Your task to perform on an android device: toggle show notifications on the lock screen Image 0: 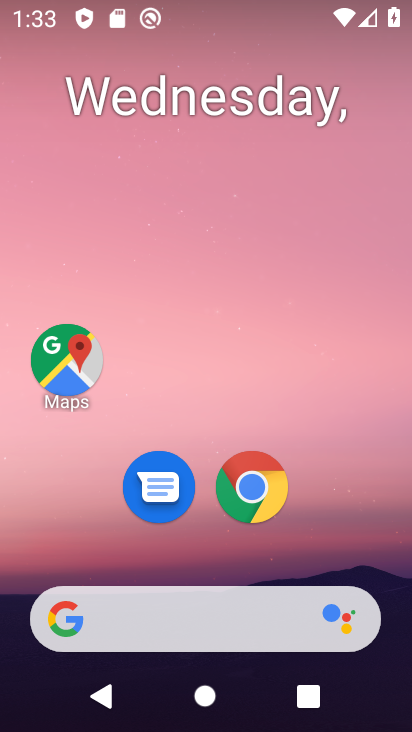
Step 0: drag from (219, 552) to (330, 13)
Your task to perform on an android device: toggle show notifications on the lock screen Image 1: 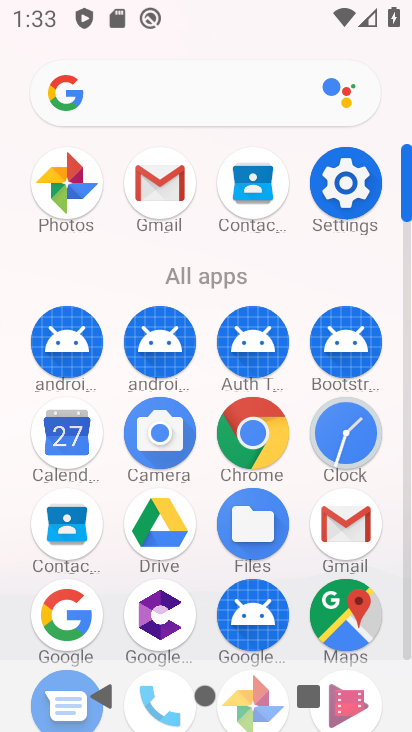
Step 1: click (341, 174)
Your task to perform on an android device: toggle show notifications on the lock screen Image 2: 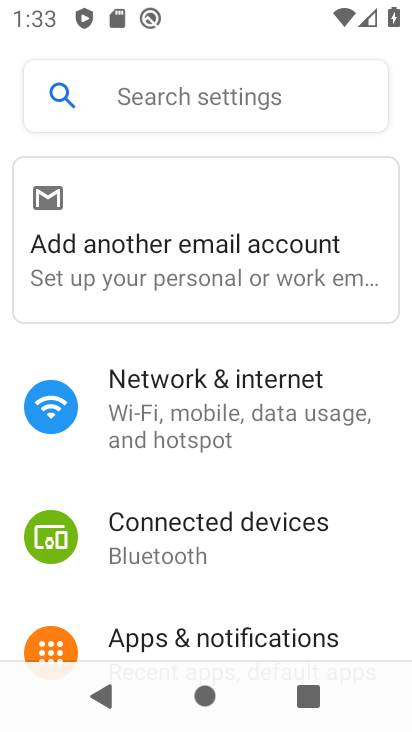
Step 2: drag from (211, 585) to (280, 334)
Your task to perform on an android device: toggle show notifications on the lock screen Image 3: 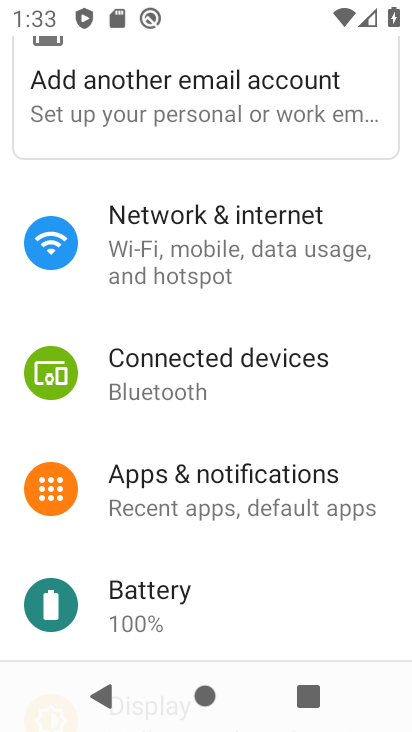
Step 3: click (227, 500)
Your task to perform on an android device: toggle show notifications on the lock screen Image 4: 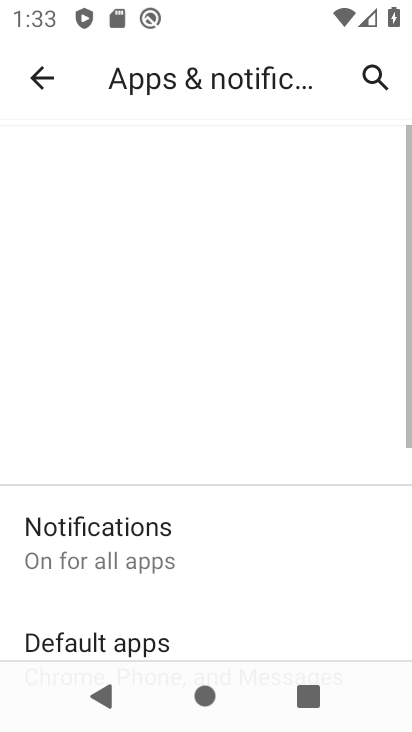
Step 4: click (186, 534)
Your task to perform on an android device: toggle show notifications on the lock screen Image 5: 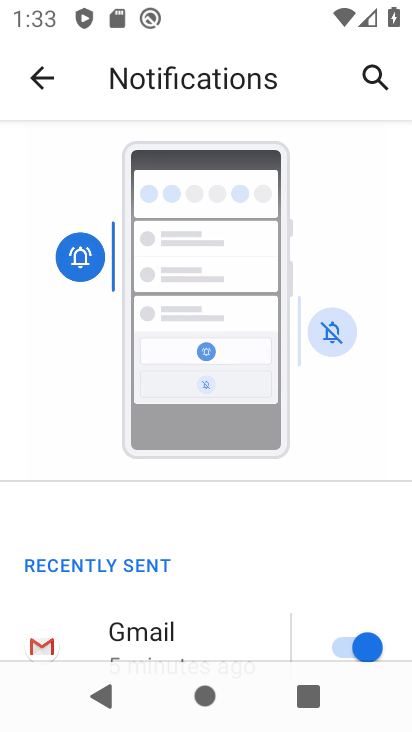
Step 5: drag from (120, 617) to (216, 113)
Your task to perform on an android device: toggle show notifications on the lock screen Image 6: 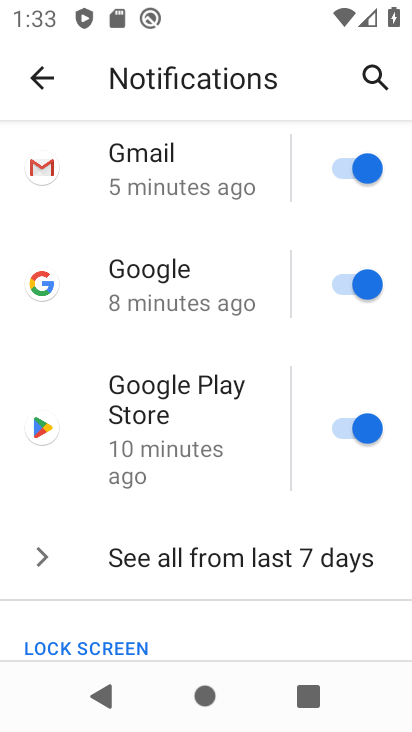
Step 6: drag from (182, 594) to (259, 285)
Your task to perform on an android device: toggle show notifications on the lock screen Image 7: 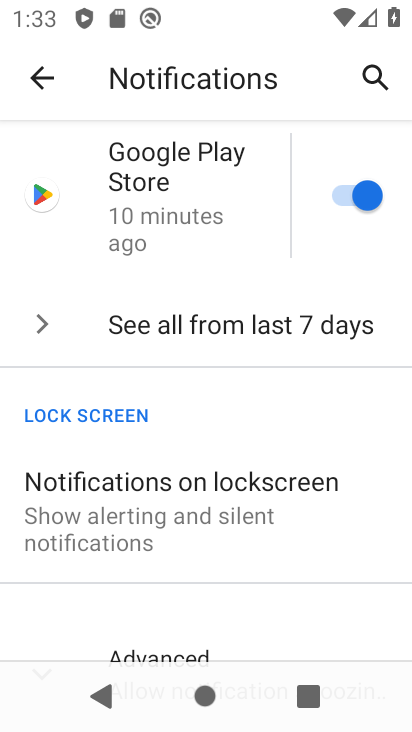
Step 7: click (104, 488)
Your task to perform on an android device: toggle show notifications on the lock screen Image 8: 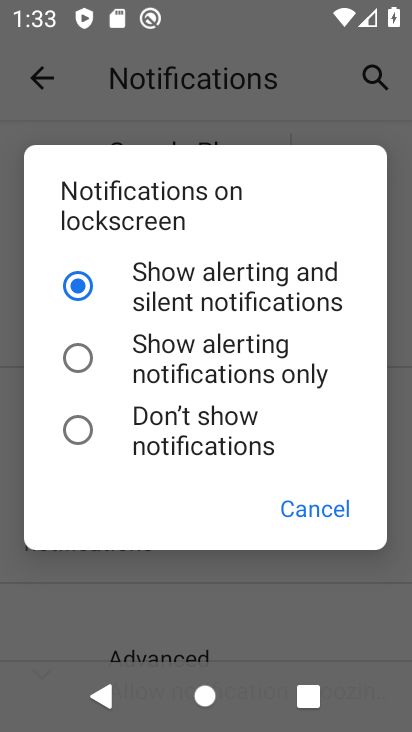
Step 8: task complete